Your task to perform on an android device: Go to Android settings Image 0: 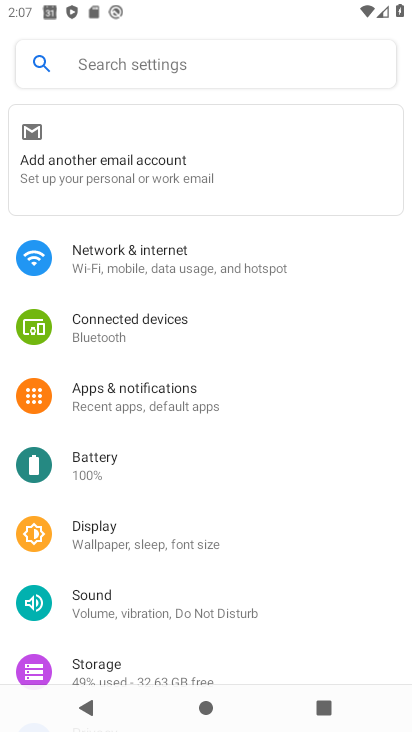
Step 0: drag from (217, 654) to (292, 134)
Your task to perform on an android device: Go to Android settings Image 1: 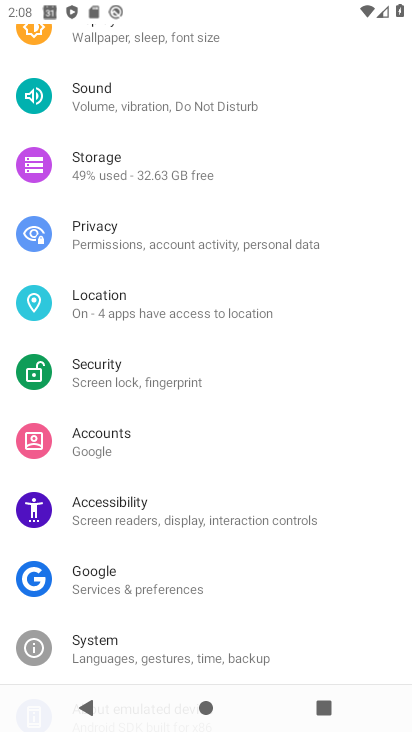
Step 1: task complete